Your task to perform on an android device: find photos in the google photos app Image 0: 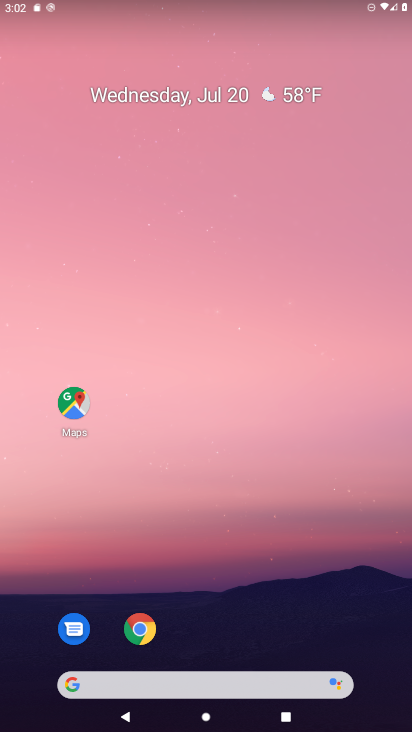
Step 0: drag from (280, 633) to (295, 62)
Your task to perform on an android device: find photos in the google photos app Image 1: 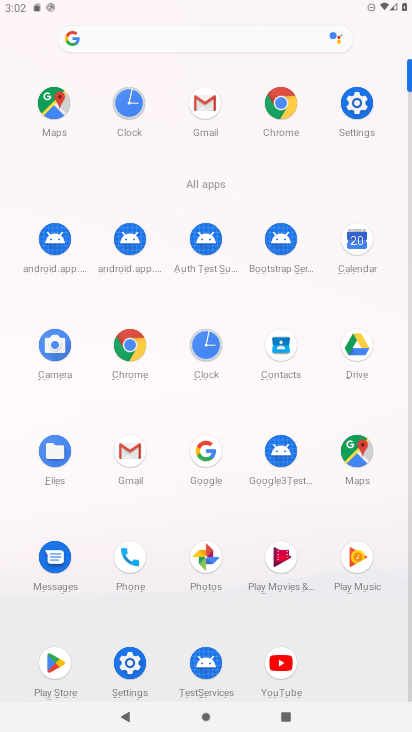
Step 1: click (212, 556)
Your task to perform on an android device: find photos in the google photos app Image 2: 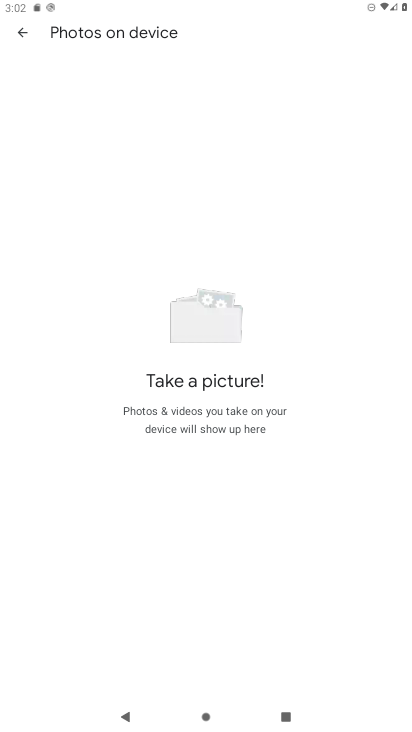
Step 2: click (27, 29)
Your task to perform on an android device: find photos in the google photos app Image 3: 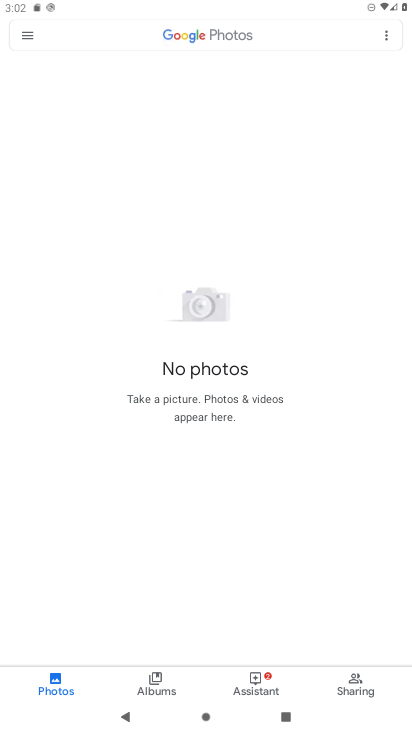
Step 3: click (38, 682)
Your task to perform on an android device: find photos in the google photos app Image 4: 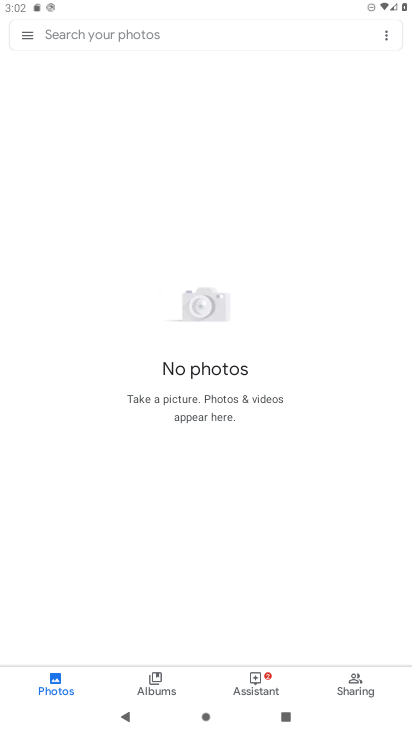
Step 4: task complete